Your task to perform on an android device: change the clock display to analog Image 0: 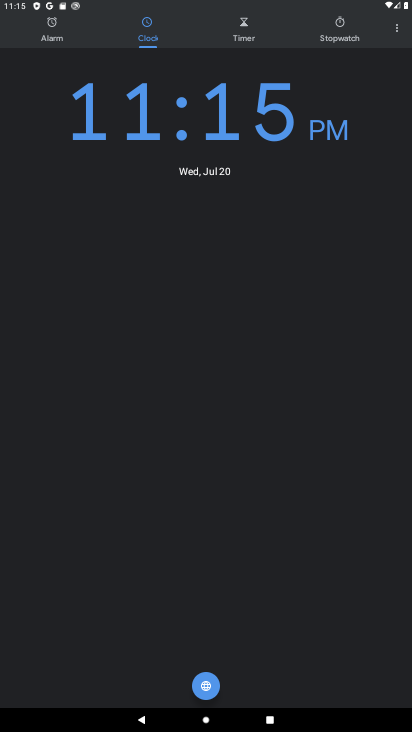
Step 0: click (398, 27)
Your task to perform on an android device: change the clock display to analog Image 1: 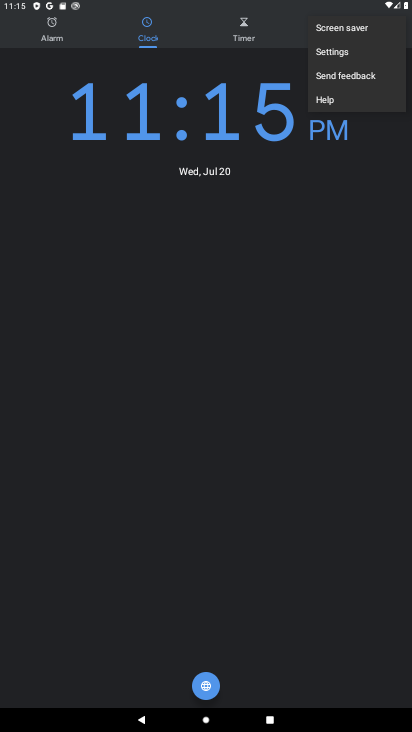
Step 1: click (335, 56)
Your task to perform on an android device: change the clock display to analog Image 2: 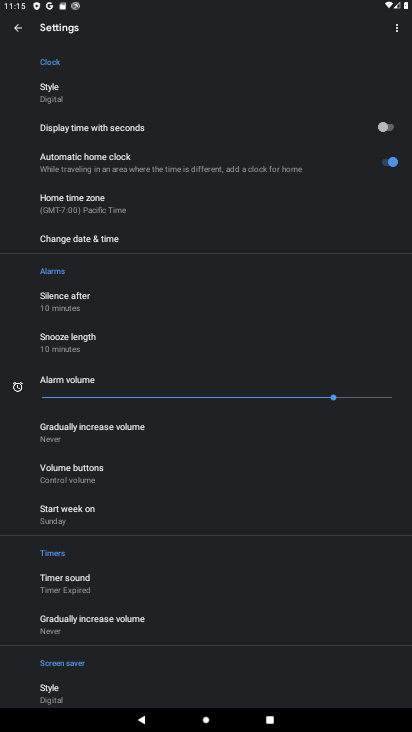
Step 2: click (71, 92)
Your task to perform on an android device: change the clock display to analog Image 3: 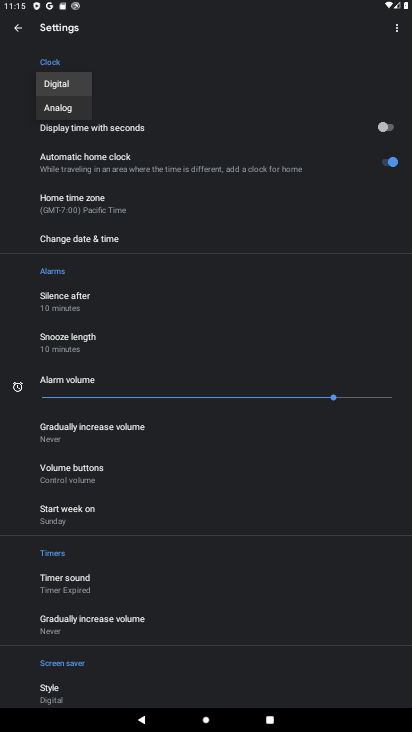
Step 3: click (67, 106)
Your task to perform on an android device: change the clock display to analog Image 4: 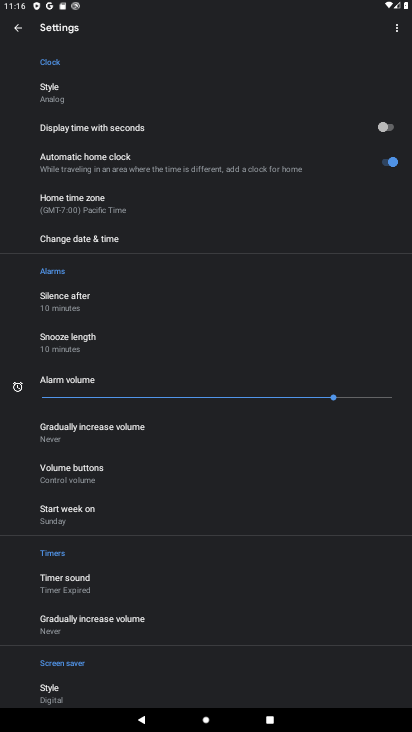
Step 4: task complete